Your task to perform on an android device: set default search engine in the chrome app Image 0: 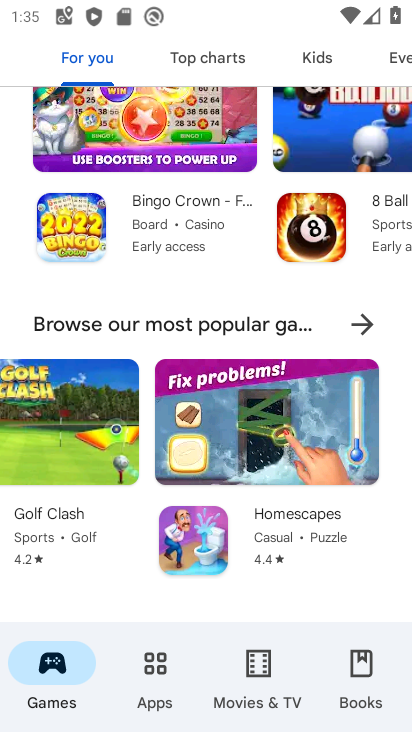
Step 0: press back button
Your task to perform on an android device: set default search engine in the chrome app Image 1: 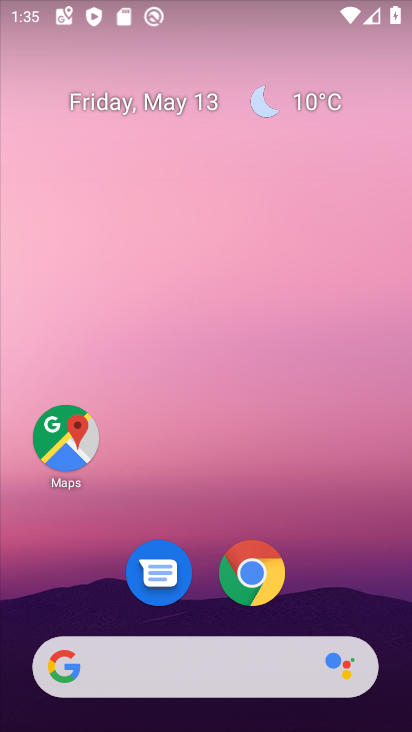
Step 1: drag from (332, 547) to (240, 39)
Your task to perform on an android device: set default search engine in the chrome app Image 2: 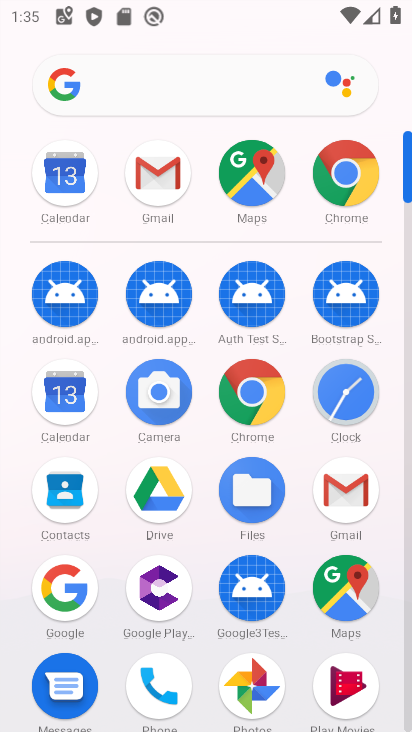
Step 2: drag from (16, 585) to (4, 282)
Your task to perform on an android device: set default search engine in the chrome app Image 3: 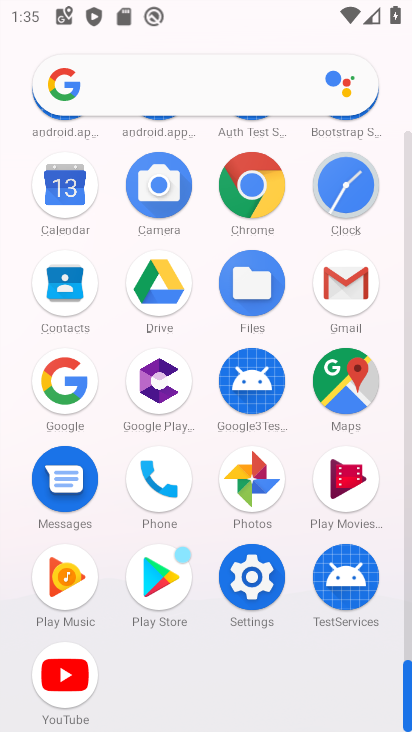
Step 3: click (248, 179)
Your task to perform on an android device: set default search engine in the chrome app Image 4: 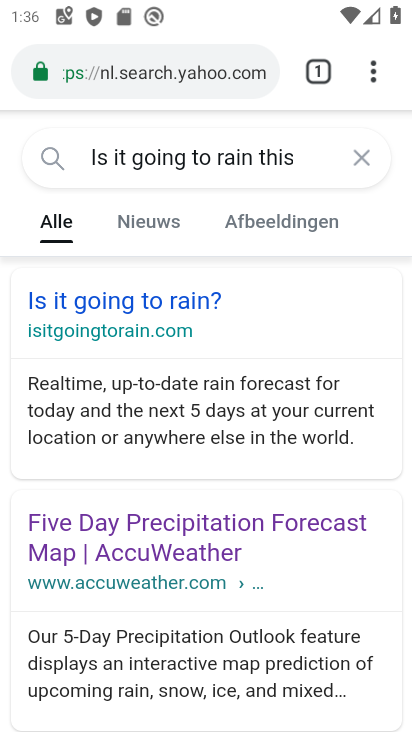
Step 4: drag from (373, 77) to (117, 555)
Your task to perform on an android device: set default search engine in the chrome app Image 5: 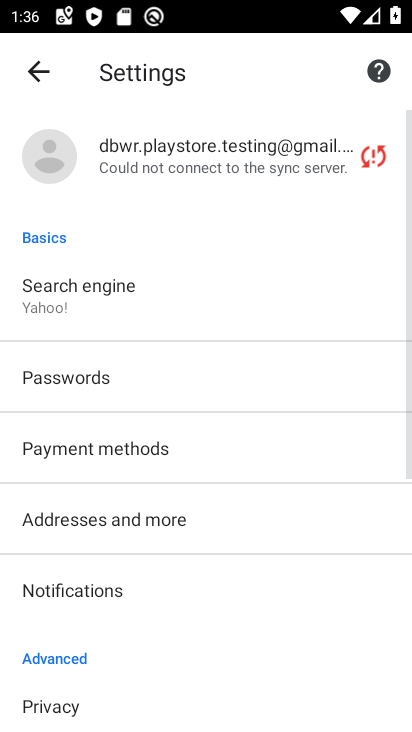
Step 5: click (119, 297)
Your task to perform on an android device: set default search engine in the chrome app Image 6: 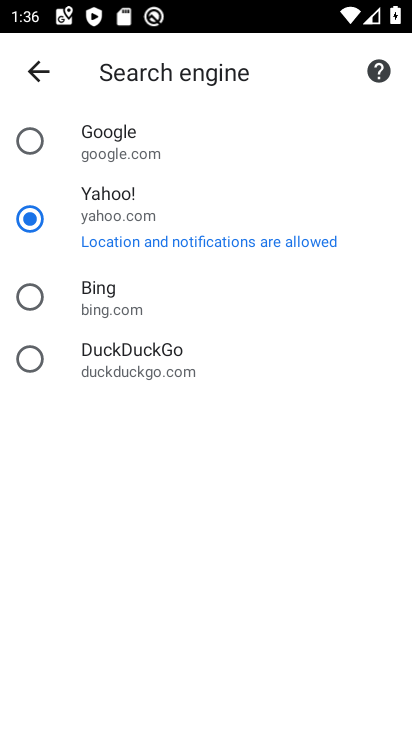
Step 6: click (124, 139)
Your task to perform on an android device: set default search engine in the chrome app Image 7: 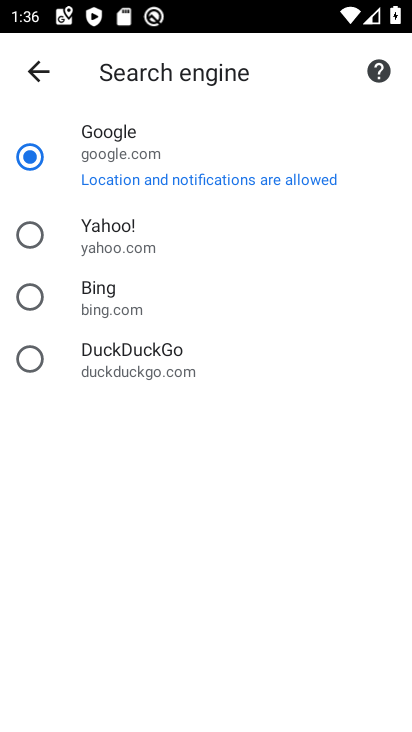
Step 7: task complete